Your task to perform on an android device: Open Chrome and go to the settings page Image 0: 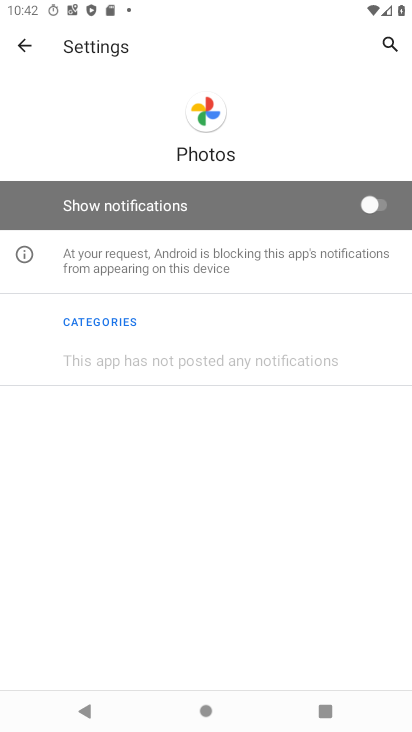
Step 0: press home button
Your task to perform on an android device: Open Chrome and go to the settings page Image 1: 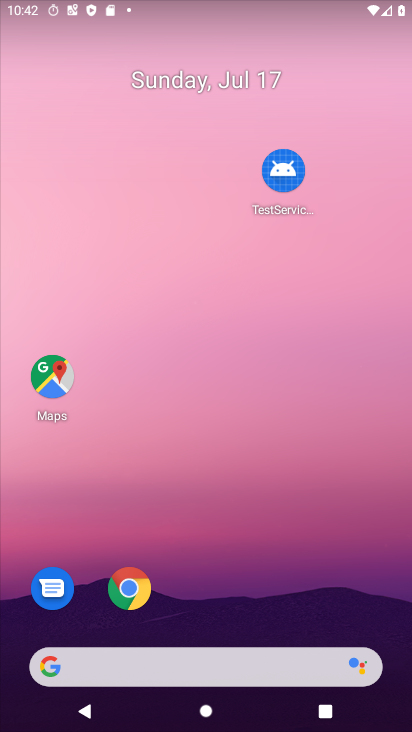
Step 1: drag from (283, 590) to (271, 2)
Your task to perform on an android device: Open Chrome and go to the settings page Image 2: 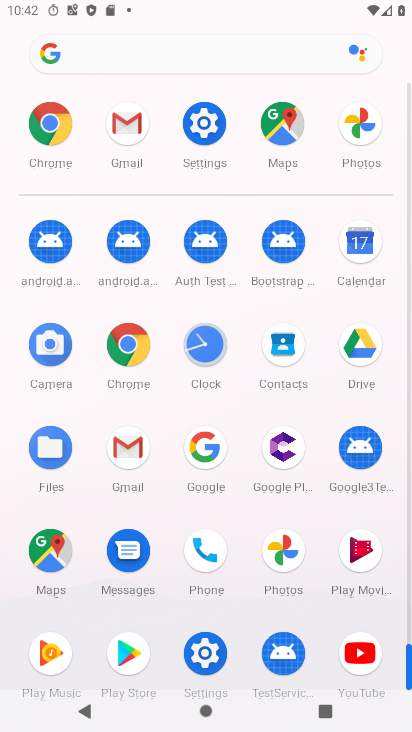
Step 2: click (134, 368)
Your task to perform on an android device: Open Chrome and go to the settings page Image 3: 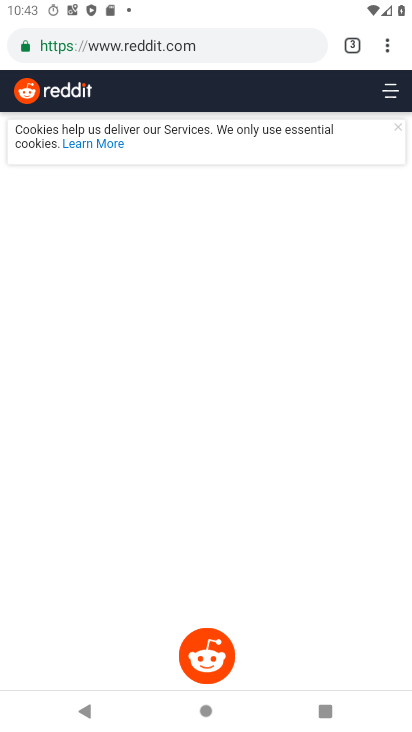
Step 3: click (390, 55)
Your task to perform on an android device: Open Chrome and go to the settings page Image 4: 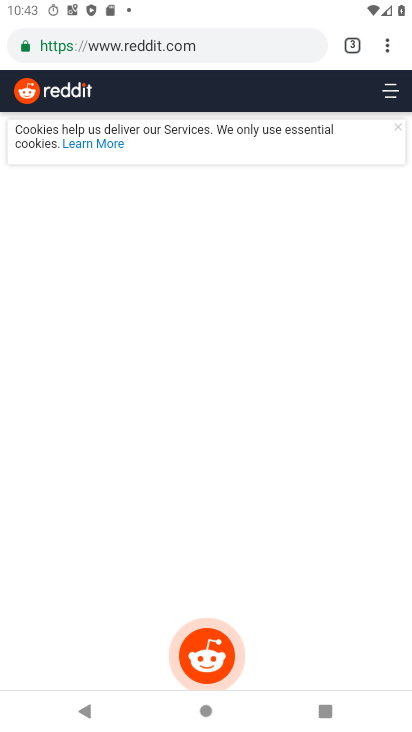
Step 4: click (387, 53)
Your task to perform on an android device: Open Chrome and go to the settings page Image 5: 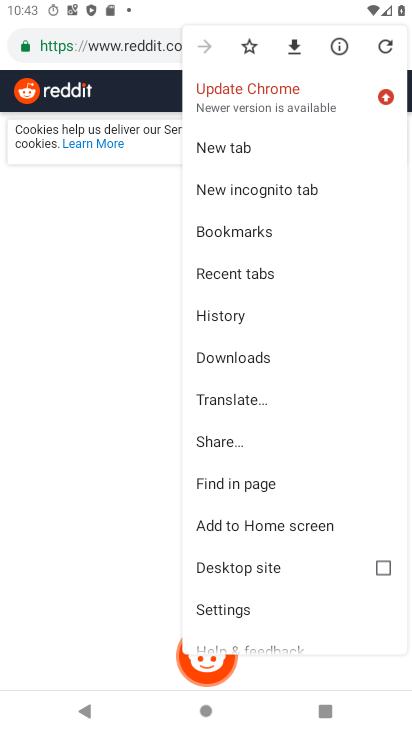
Step 5: click (254, 607)
Your task to perform on an android device: Open Chrome and go to the settings page Image 6: 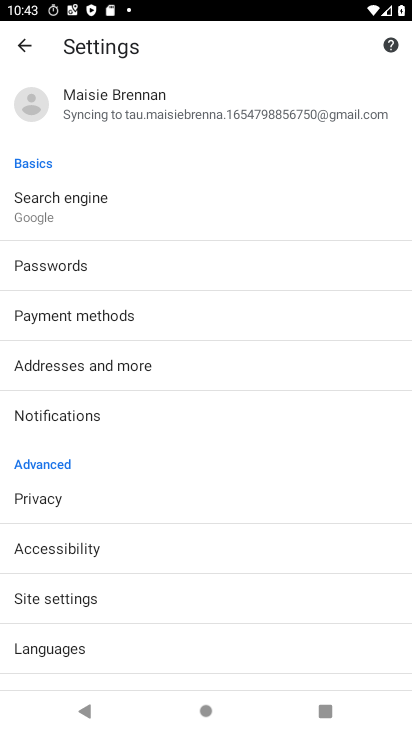
Step 6: task complete